Your task to perform on an android device: open a new tab in the chrome app Image 0: 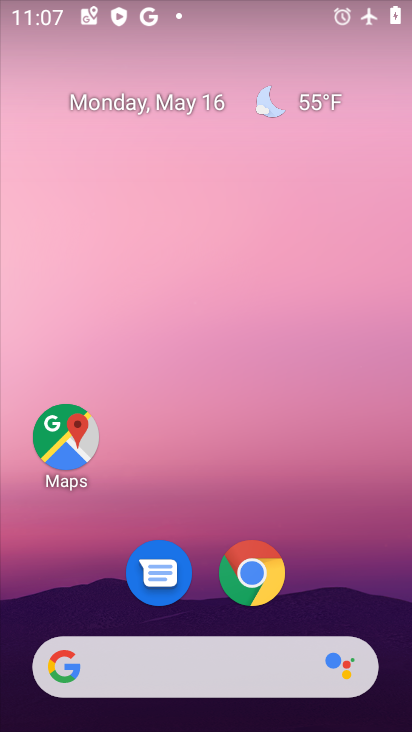
Step 0: drag from (359, 15) to (288, 397)
Your task to perform on an android device: open a new tab in the chrome app Image 1: 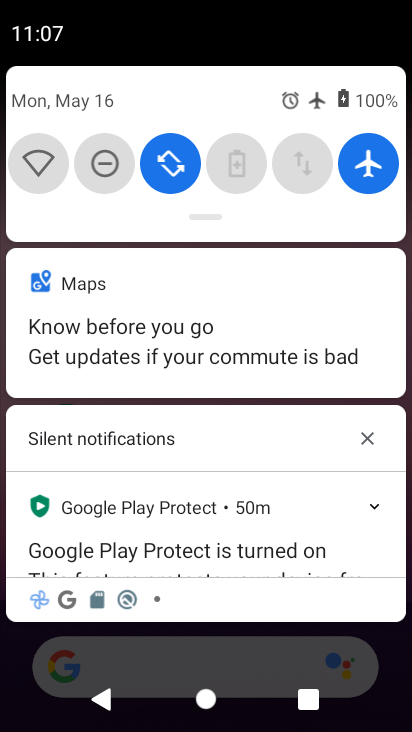
Step 1: click (361, 163)
Your task to perform on an android device: open a new tab in the chrome app Image 2: 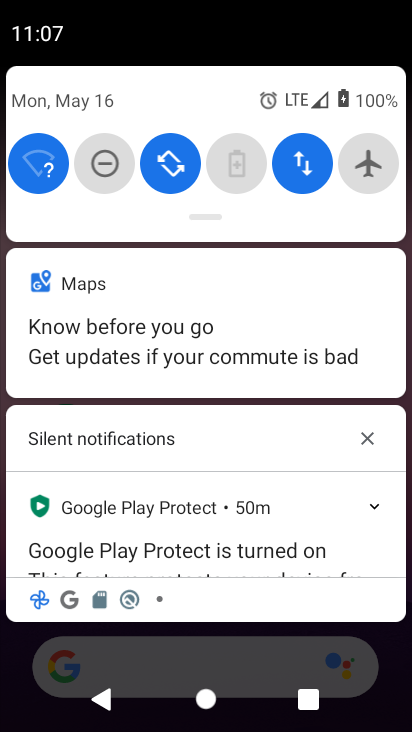
Step 2: drag from (297, 654) to (248, 267)
Your task to perform on an android device: open a new tab in the chrome app Image 3: 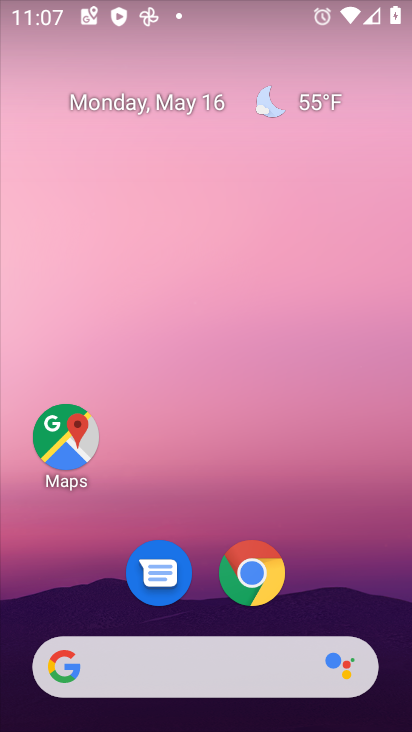
Step 3: click (268, 583)
Your task to perform on an android device: open a new tab in the chrome app Image 4: 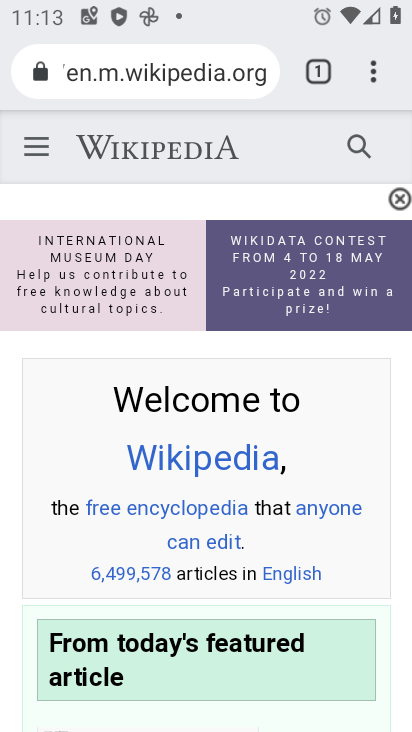
Step 4: click (323, 77)
Your task to perform on an android device: open a new tab in the chrome app Image 5: 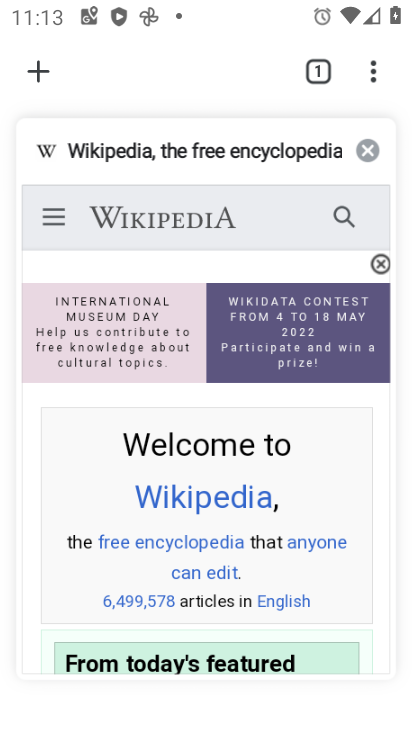
Step 5: click (39, 75)
Your task to perform on an android device: open a new tab in the chrome app Image 6: 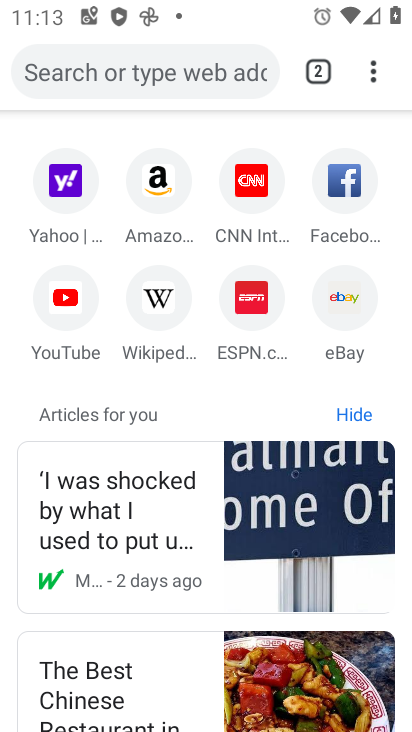
Step 6: task complete